Your task to perform on an android device: When is my next appointment? Image 0: 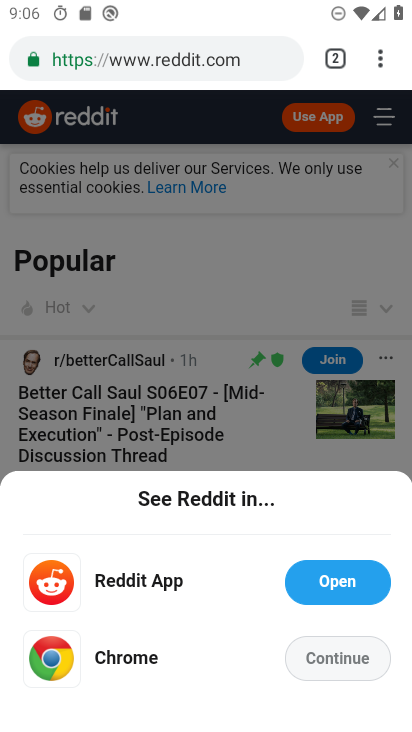
Step 0: press home button
Your task to perform on an android device: When is my next appointment? Image 1: 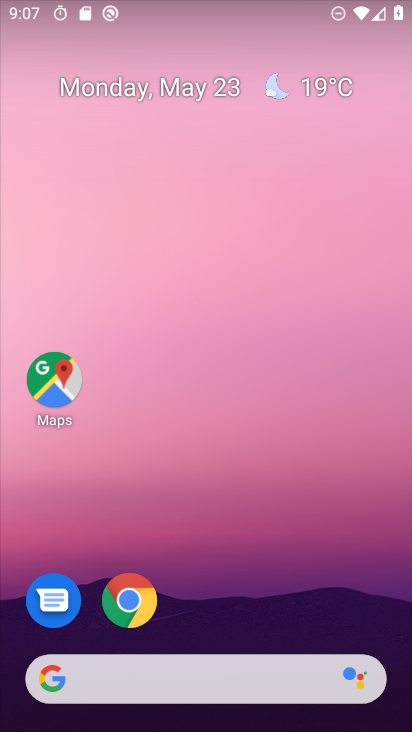
Step 1: drag from (69, 418) to (223, 68)
Your task to perform on an android device: When is my next appointment? Image 2: 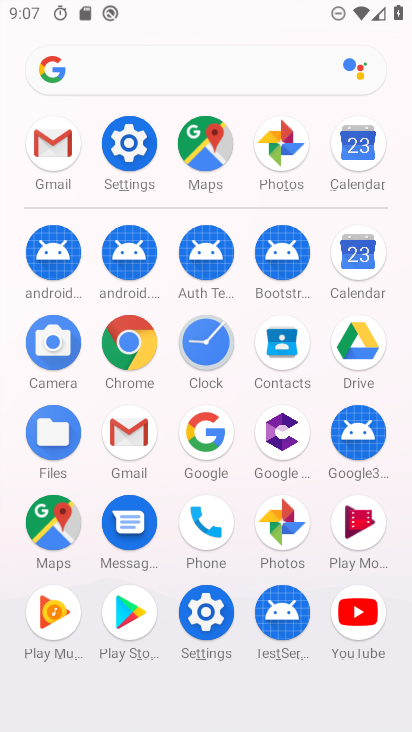
Step 2: click (127, 136)
Your task to perform on an android device: When is my next appointment? Image 3: 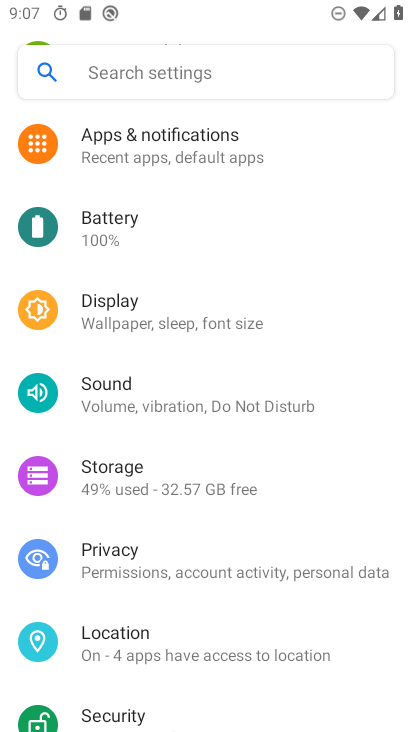
Step 3: press home button
Your task to perform on an android device: When is my next appointment? Image 4: 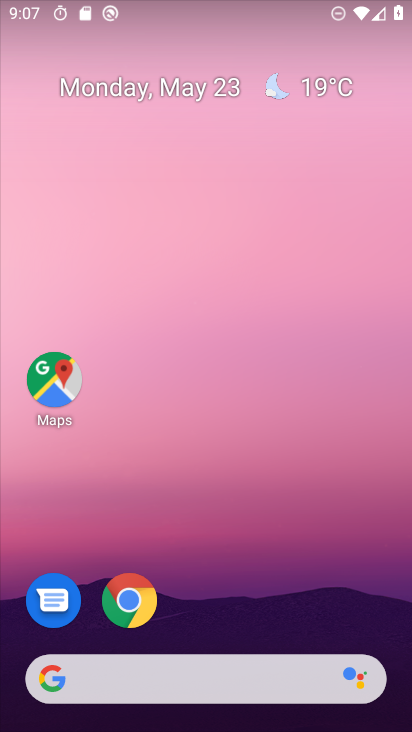
Step 4: drag from (86, 422) to (223, 107)
Your task to perform on an android device: When is my next appointment? Image 5: 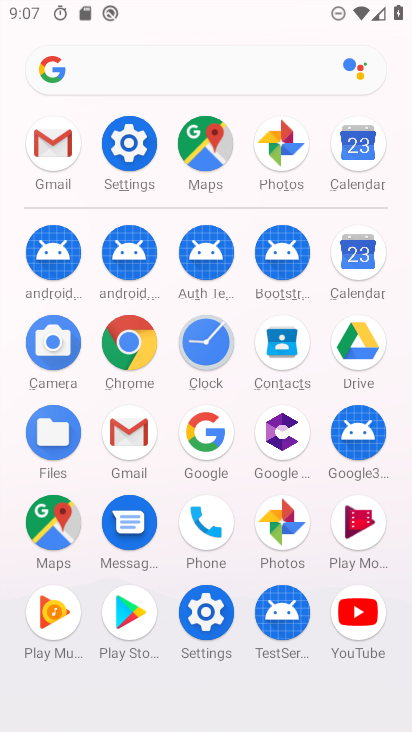
Step 5: click (361, 164)
Your task to perform on an android device: When is my next appointment? Image 6: 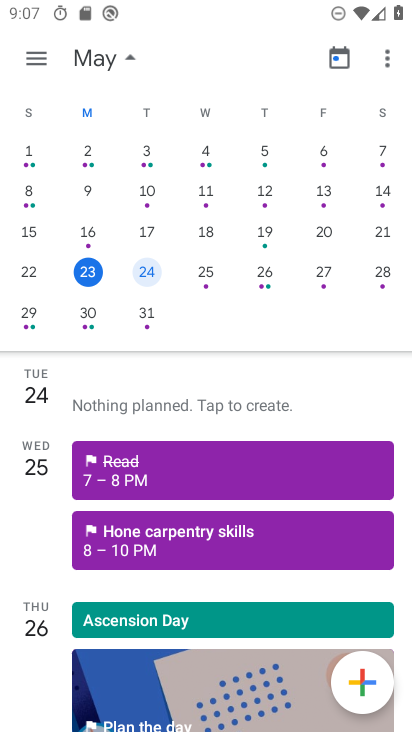
Step 6: click (149, 269)
Your task to perform on an android device: When is my next appointment? Image 7: 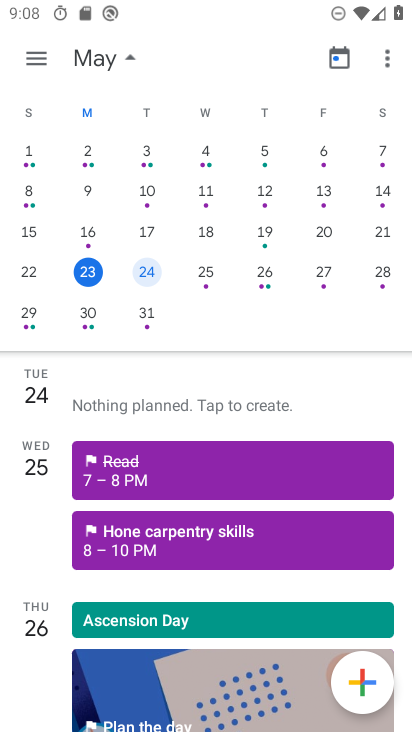
Step 7: task complete